Your task to perform on an android device: Clear the shopping cart on walmart.com. Search for "energizer triple a" on walmart.com, select the first entry, add it to the cart, then select checkout. Image 0: 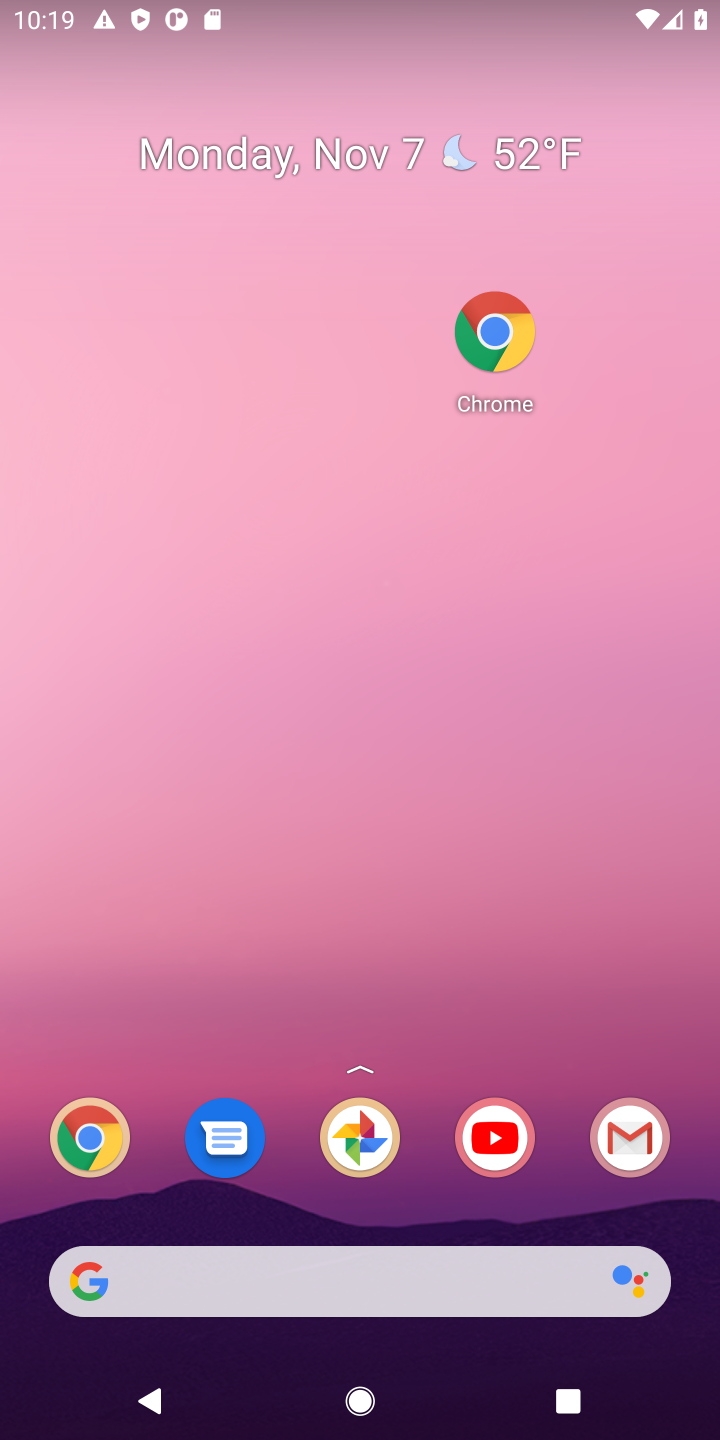
Step 0: drag from (282, 1008) to (161, 280)
Your task to perform on an android device: Clear the shopping cart on walmart.com. Search for "energizer triple a" on walmart.com, select the first entry, add it to the cart, then select checkout. Image 1: 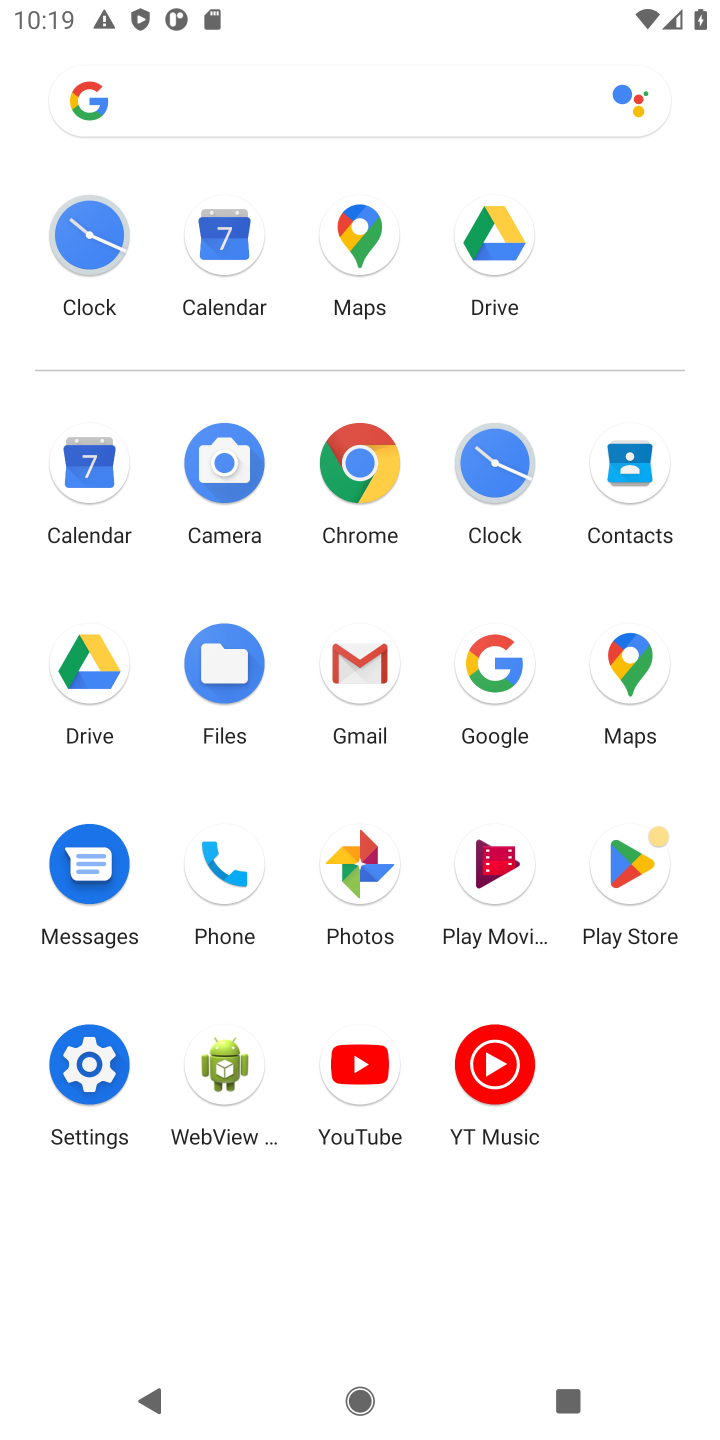
Step 1: click (367, 469)
Your task to perform on an android device: Clear the shopping cart on walmart.com. Search for "energizer triple a" on walmart.com, select the first entry, add it to the cart, then select checkout. Image 2: 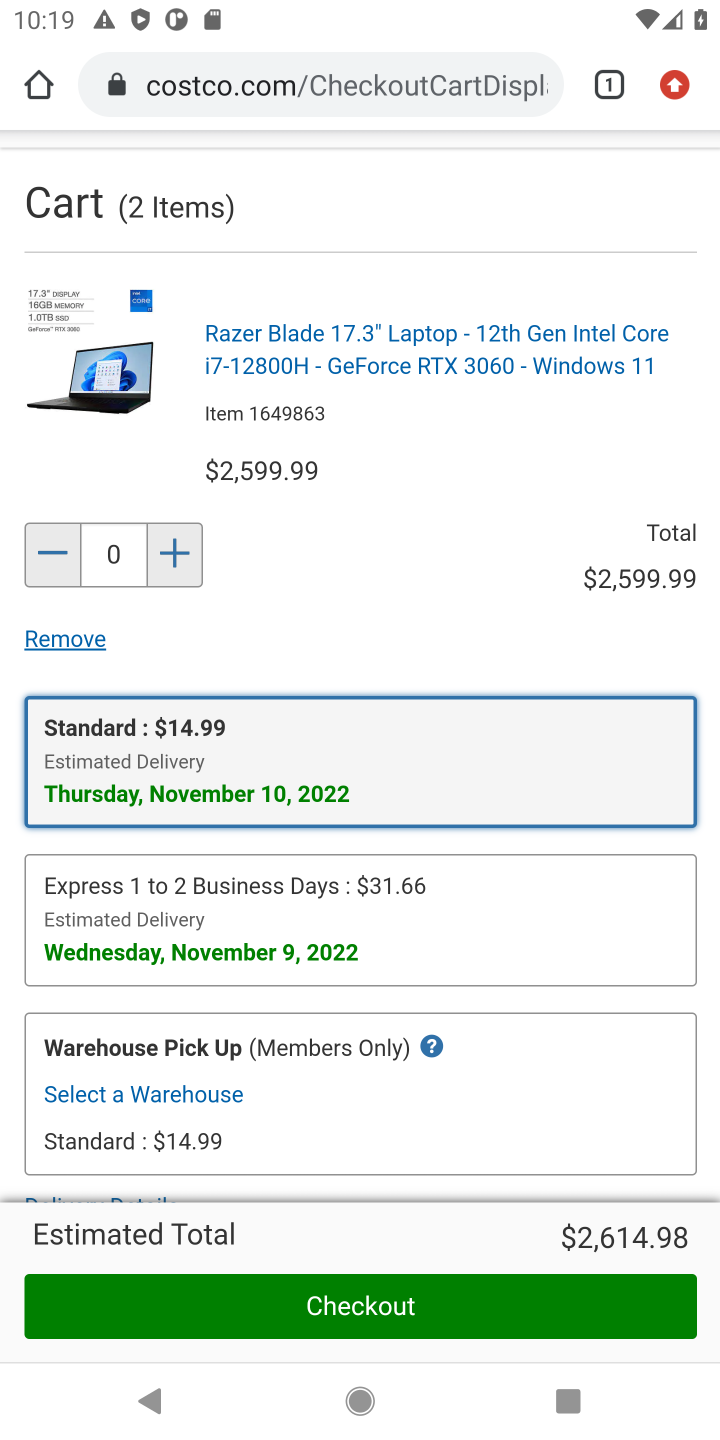
Step 2: click (385, 83)
Your task to perform on an android device: Clear the shopping cart on walmart.com. Search for "energizer triple a" on walmart.com, select the first entry, add it to the cart, then select checkout. Image 3: 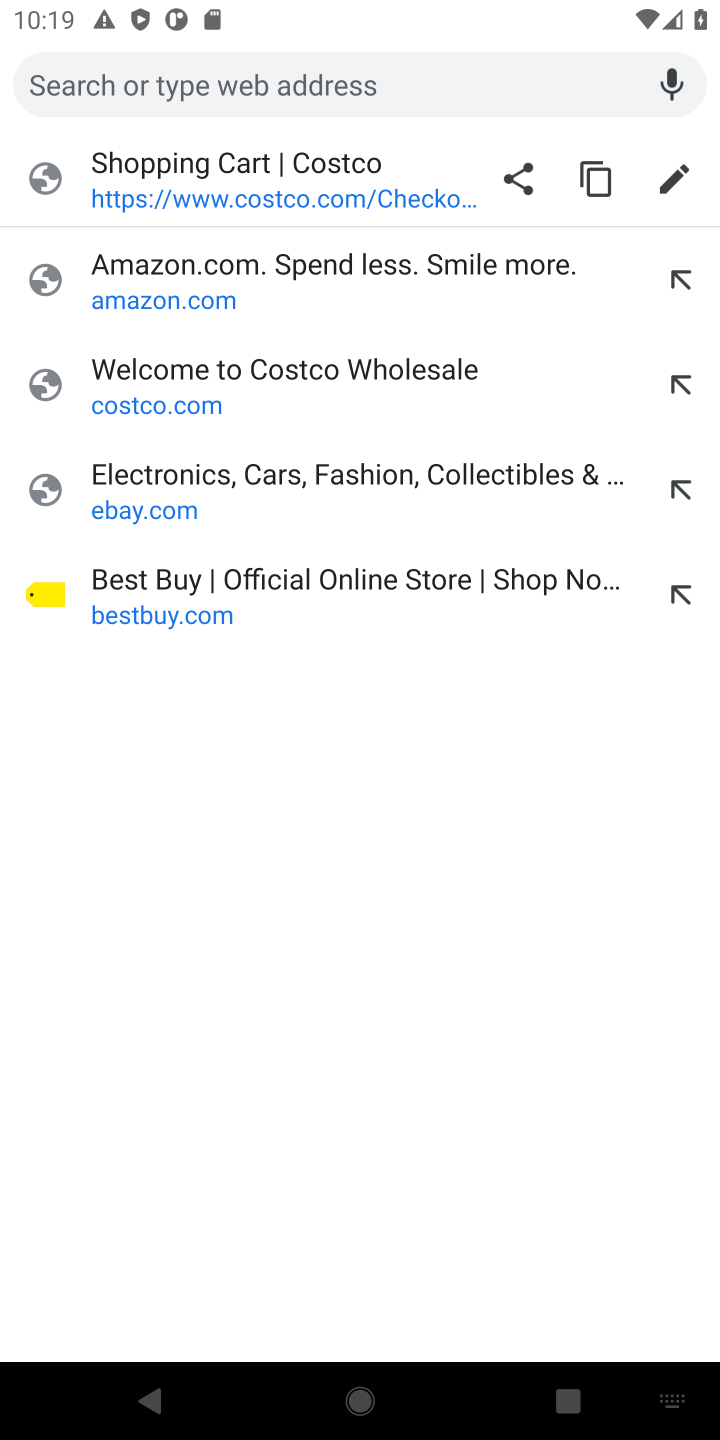
Step 3: type "walmart.com"
Your task to perform on an android device: Clear the shopping cart on walmart.com. Search for "energizer triple a" on walmart.com, select the first entry, add it to the cart, then select checkout. Image 4: 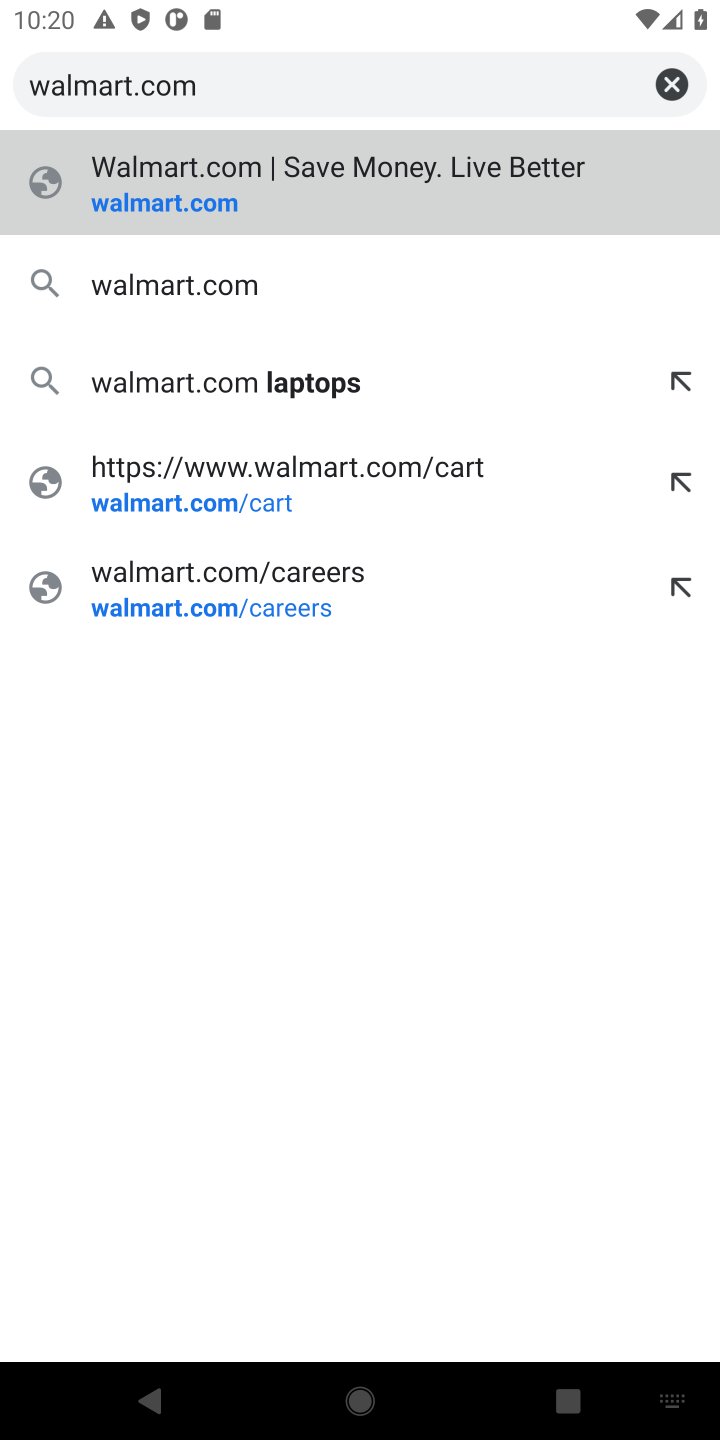
Step 4: press enter
Your task to perform on an android device: Clear the shopping cart on walmart.com. Search for "energizer triple a" on walmart.com, select the first entry, add it to the cart, then select checkout. Image 5: 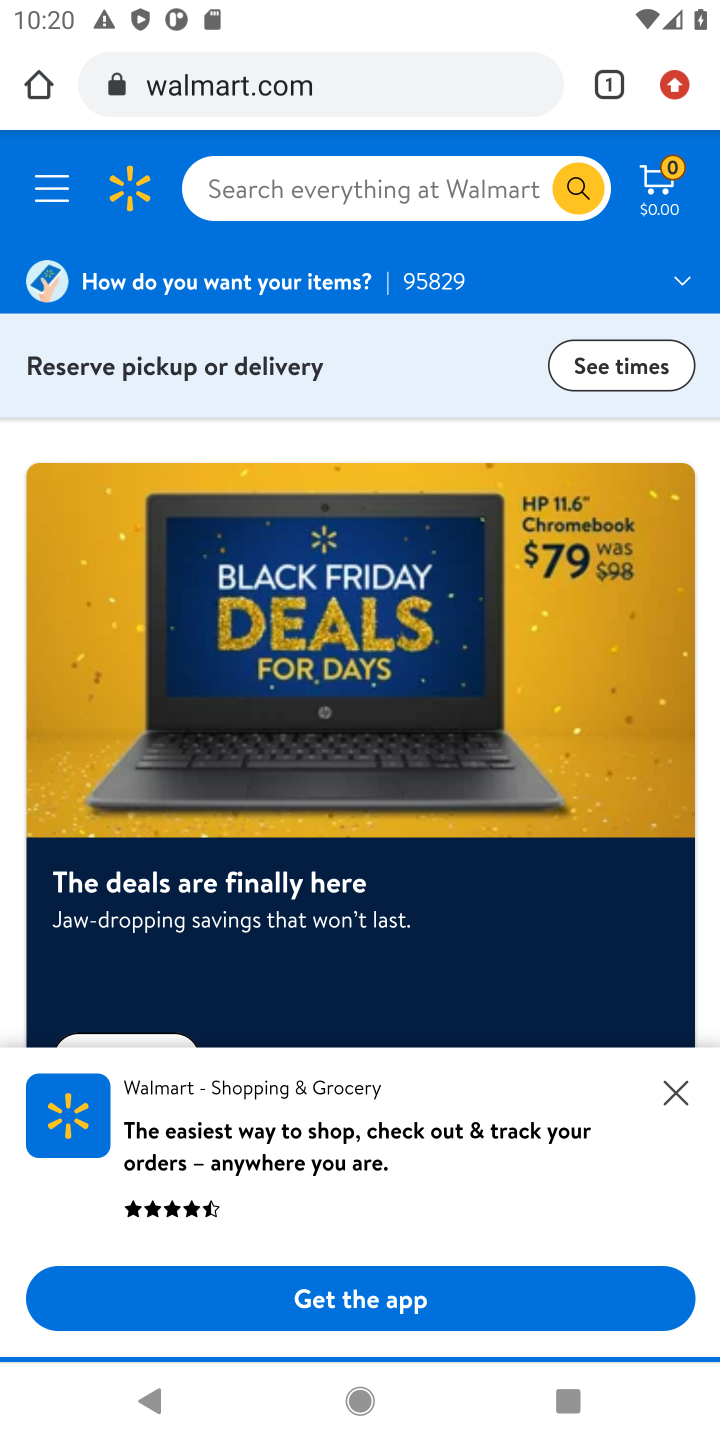
Step 5: click (656, 184)
Your task to perform on an android device: Clear the shopping cart on walmart.com. Search for "energizer triple a" on walmart.com, select the first entry, add it to the cart, then select checkout. Image 6: 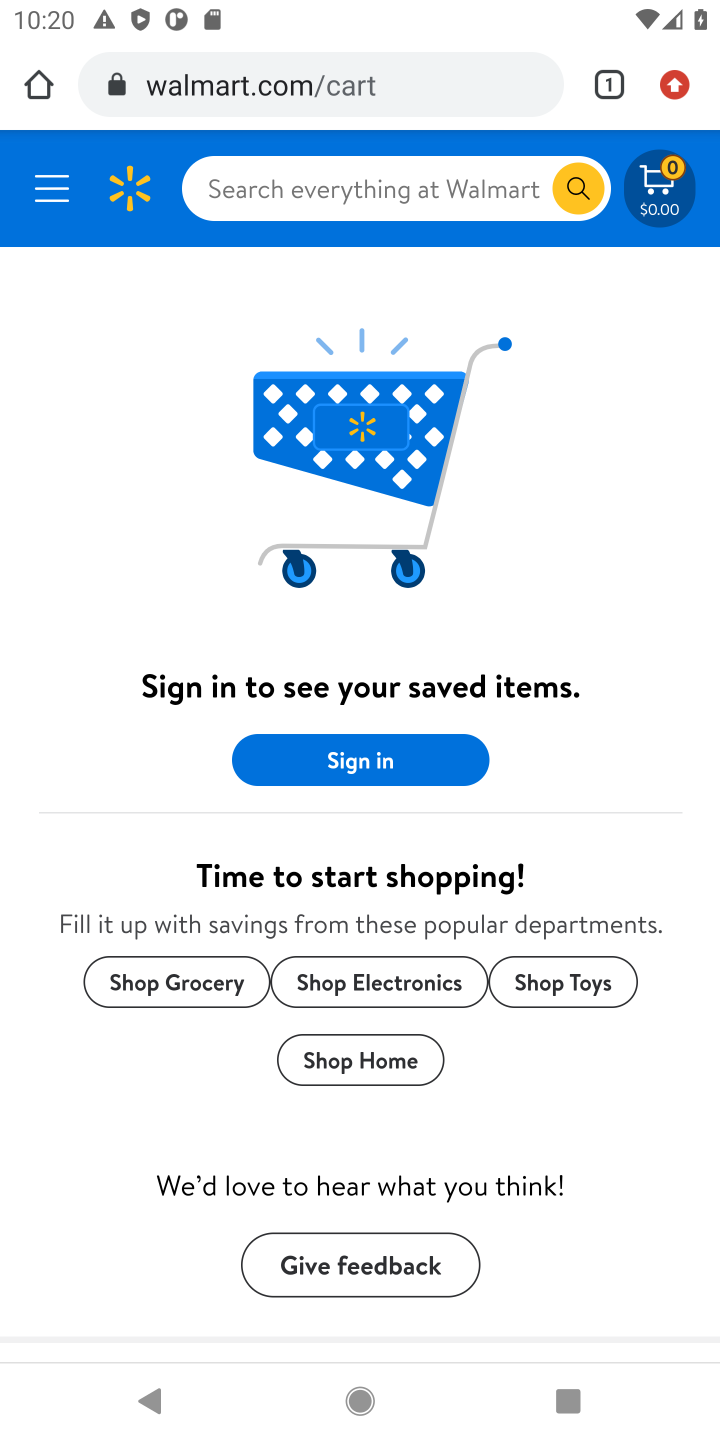
Step 6: click (419, 169)
Your task to perform on an android device: Clear the shopping cart on walmart.com. Search for "energizer triple a" on walmart.com, select the first entry, add it to the cart, then select checkout. Image 7: 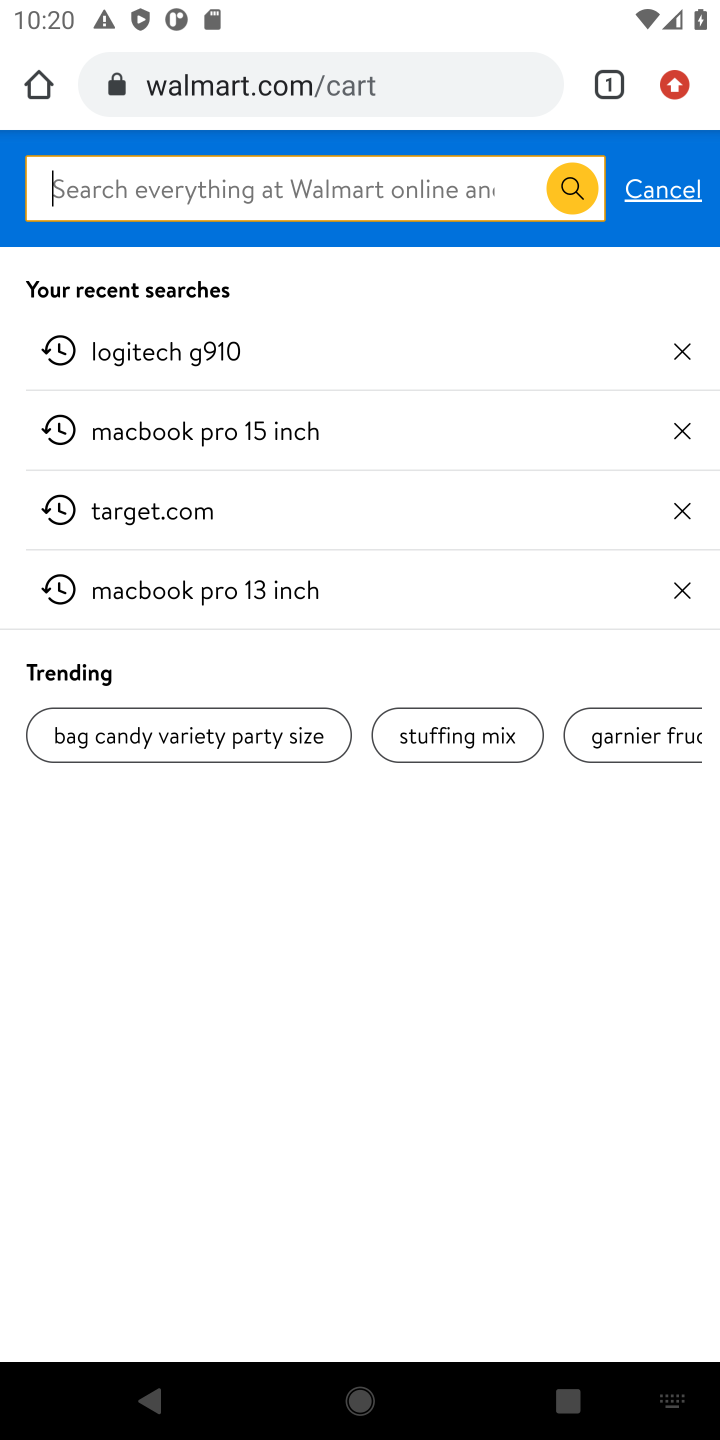
Step 7: type "energizer triple a"
Your task to perform on an android device: Clear the shopping cart on walmart.com. Search for "energizer triple a" on walmart.com, select the first entry, add it to the cart, then select checkout. Image 8: 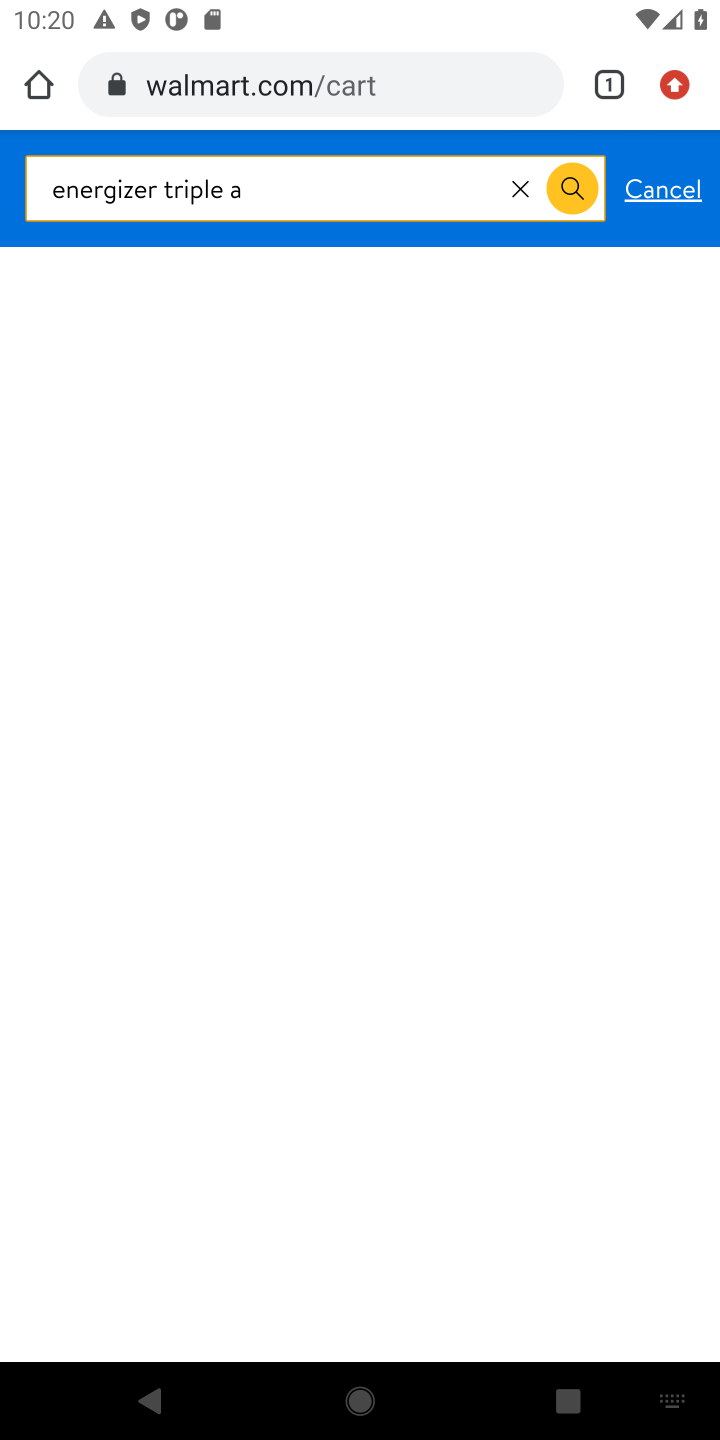
Step 8: press enter
Your task to perform on an android device: Clear the shopping cart on walmart.com. Search for "energizer triple a" on walmart.com, select the first entry, add it to the cart, then select checkout. Image 9: 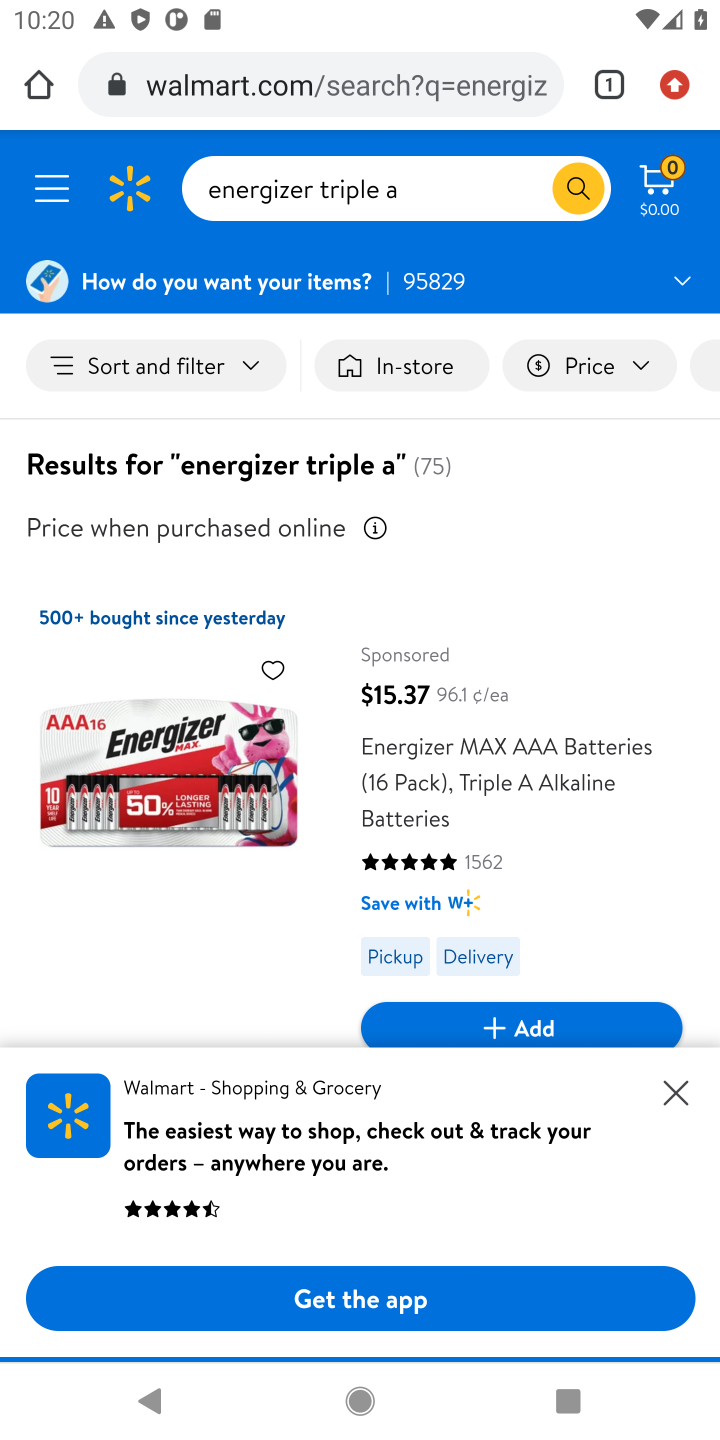
Step 9: drag from (487, 847) to (478, 188)
Your task to perform on an android device: Clear the shopping cart on walmart.com. Search for "energizer triple a" on walmart.com, select the first entry, add it to the cart, then select checkout. Image 10: 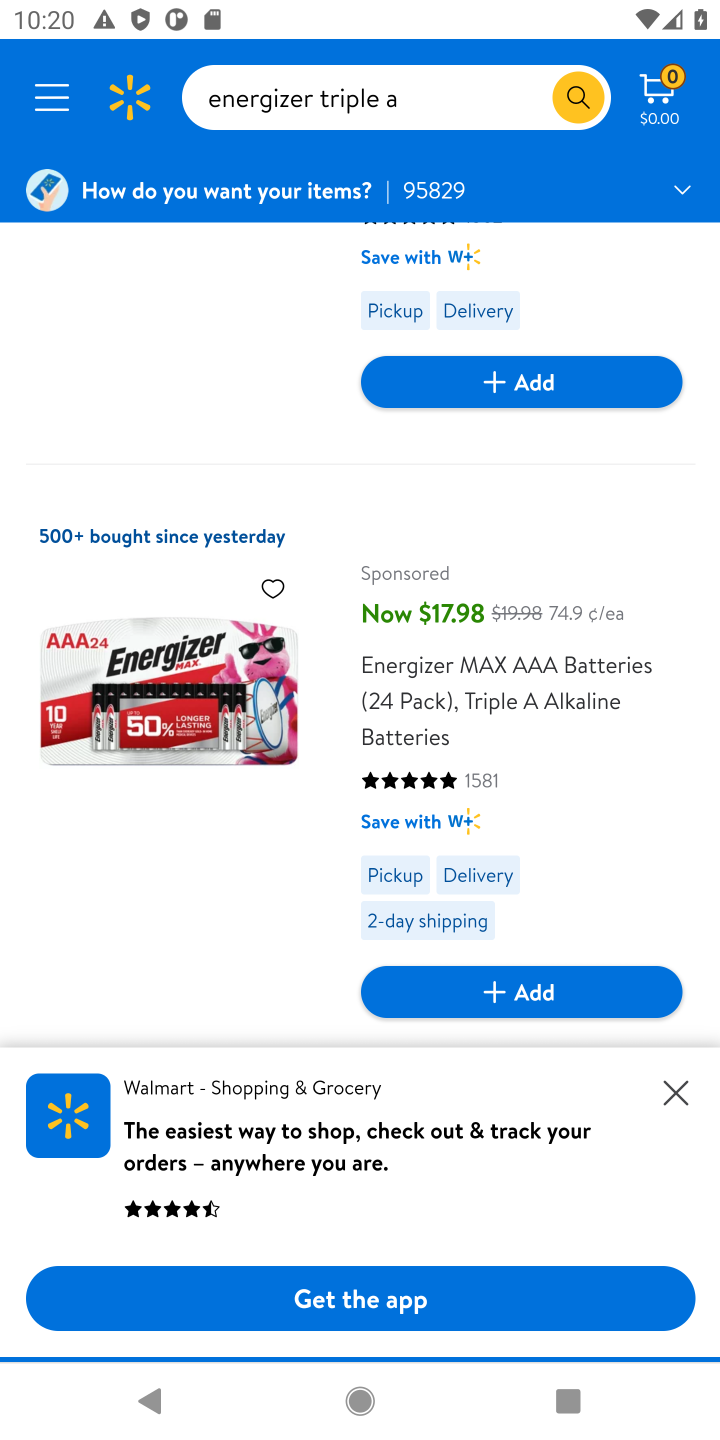
Step 10: drag from (298, 700) to (330, 328)
Your task to perform on an android device: Clear the shopping cart on walmart.com. Search for "energizer triple a" on walmart.com, select the first entry, add it to the cart, then select checkout. Image 11: 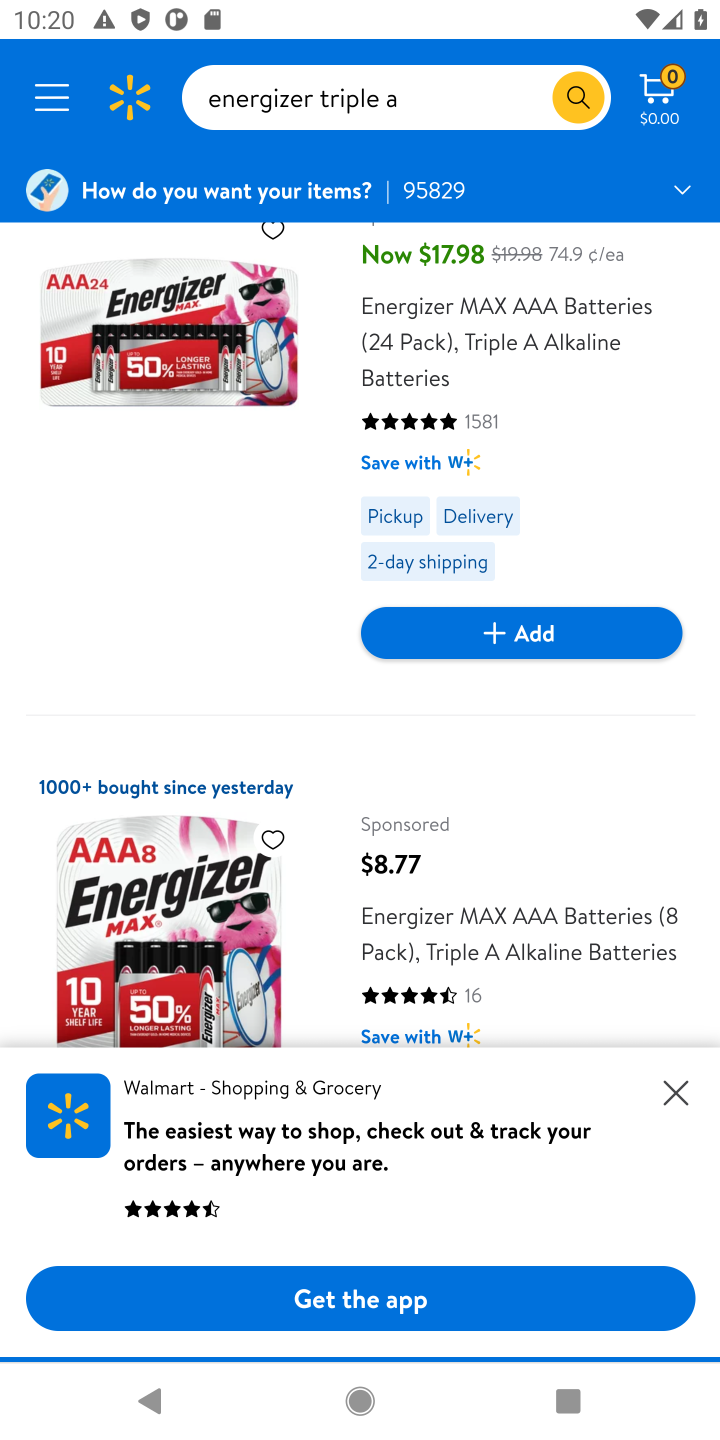
Step 11: drag from (478, 914) to (450, 163)
Your task to perform on an android device: Clear the shopping cart on walmart.com. Search for "energizer triple a" on walmart.com, select the first entry, add it to the cart, then select checkout. Image 12: 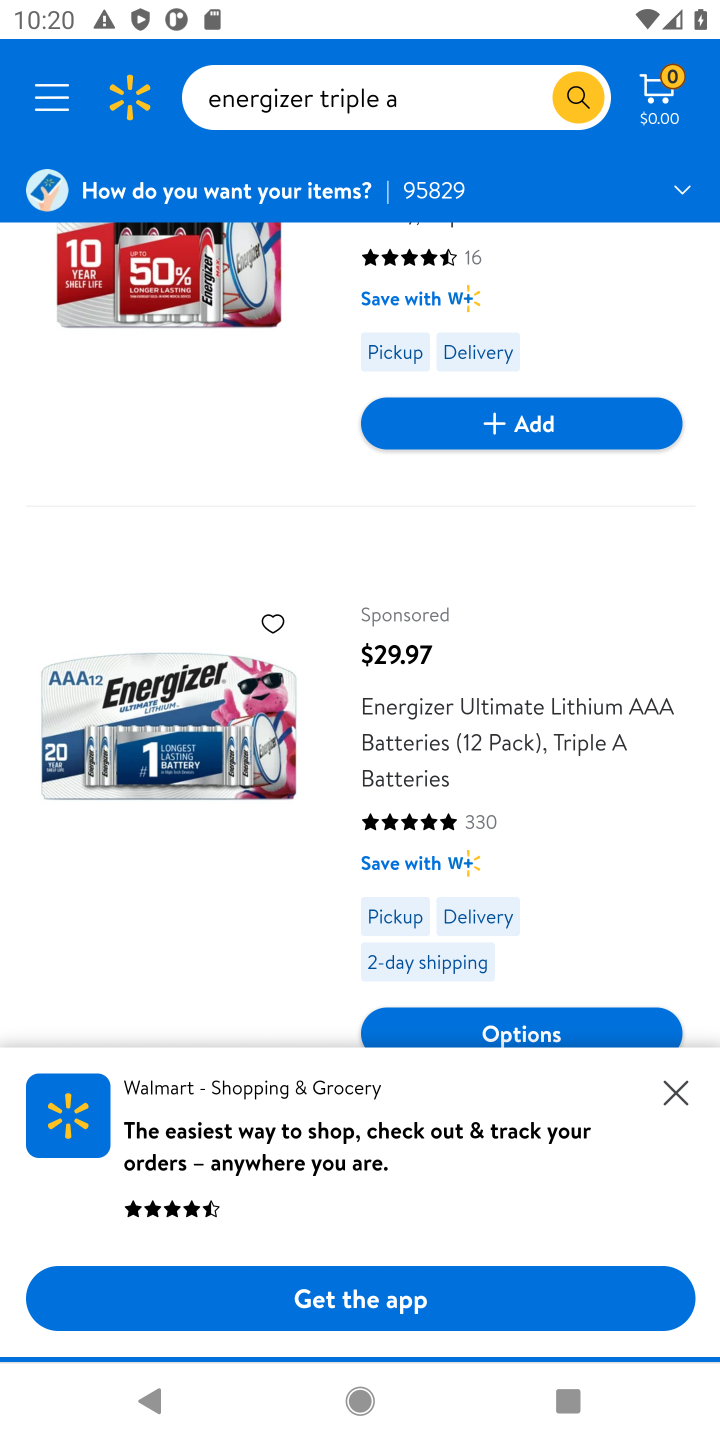
Step 12: drag from (497, 915) to (536, 256)
Your task to perform on an android device: Clear the shopping cart on walmart.com. Search for "energizer triple a" on walmart.com, select the first entry, add it to the cart, then select checkout. Image 13: 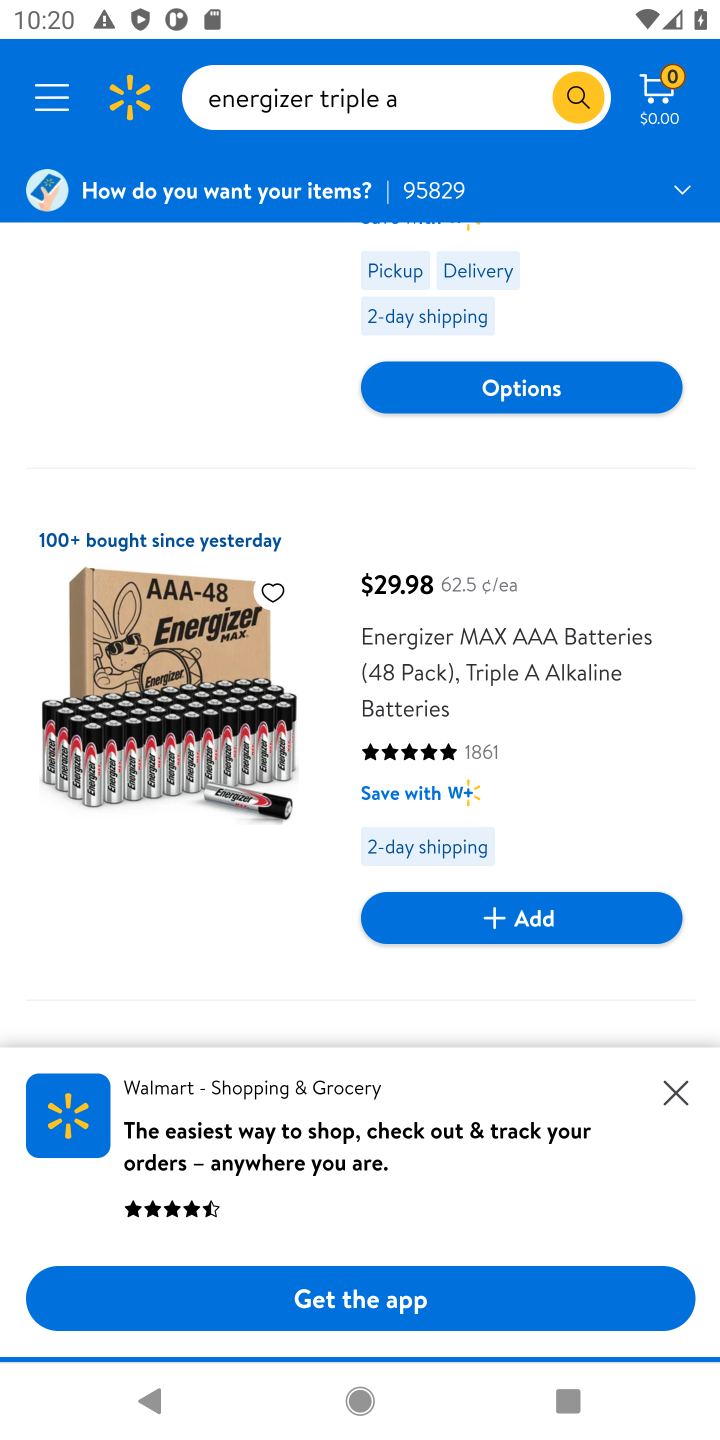
Step 13: click (564, 522)
Your task to perform on an android device: Clear the shopping cart on walmart.com. Search for "energizer triple a" on walmart.com, select the first entry, add it to the cart, then select checkout. Image 14: 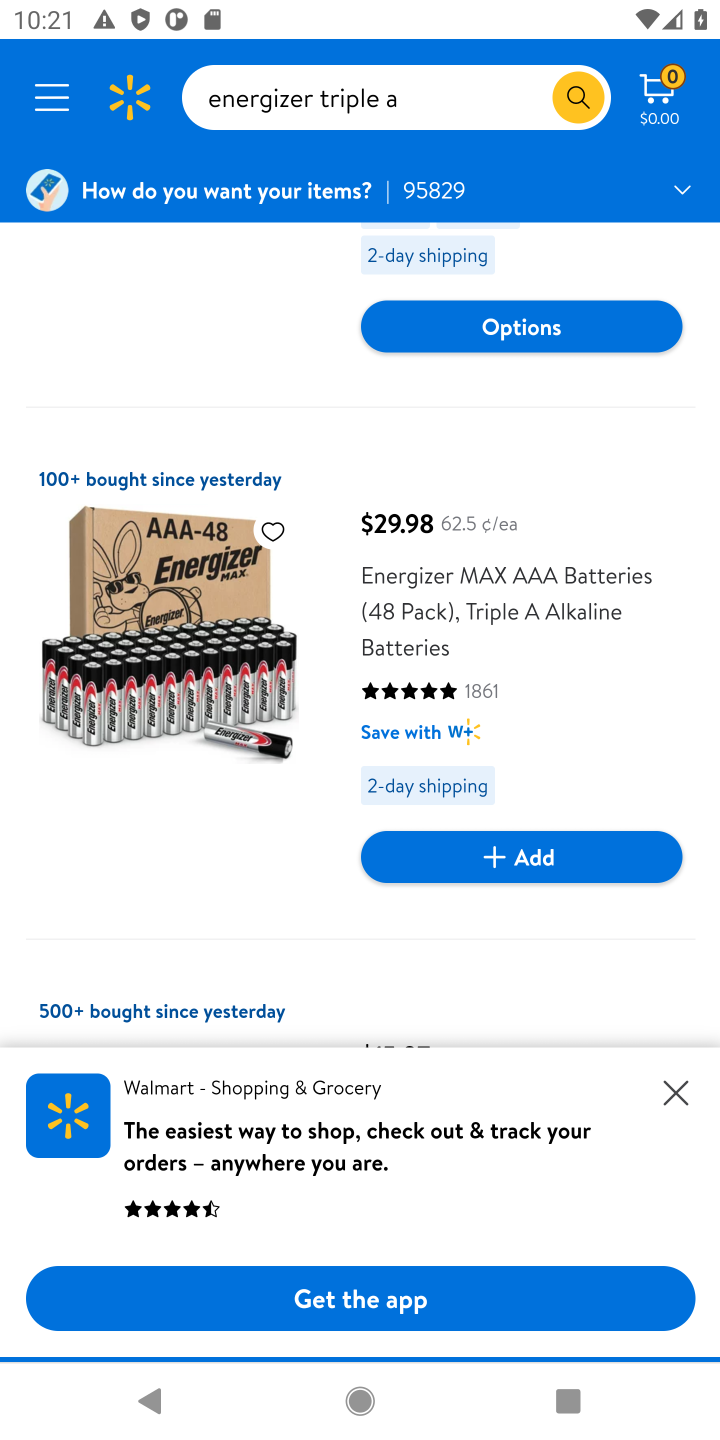
Step 14: click (598, 861)
Your task to perform on an android device: Clear the shopping cart on walmart.com. Search for "energizer triple a" on walmart.com, select the first entry, add it to the cart, then select checkout. Image 15: 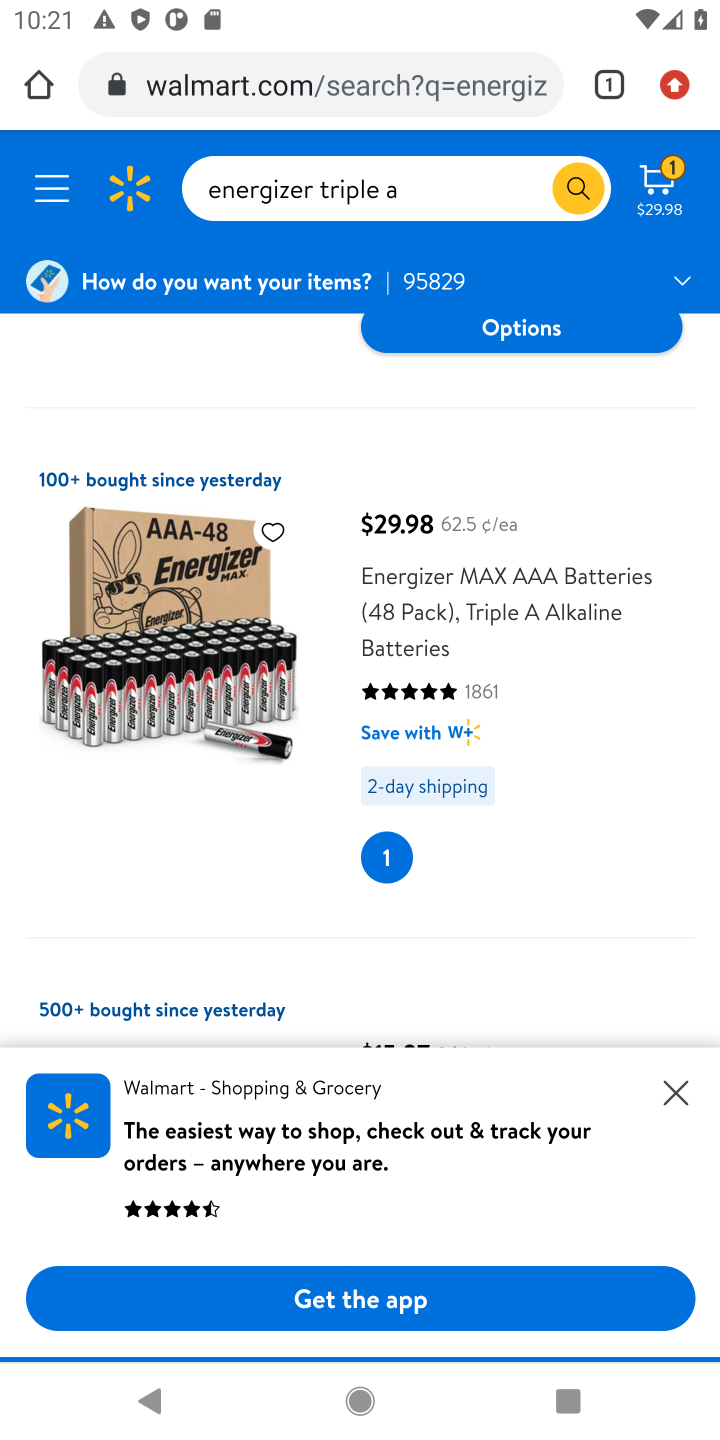
Step 15: click (672, 181)
Your task to perform on an android device: Clear the shopping cart on walmart.com. Search for "energizer triple a" on walmart.com, select the first entry, add it to the cart, then select checkout. Image 16: 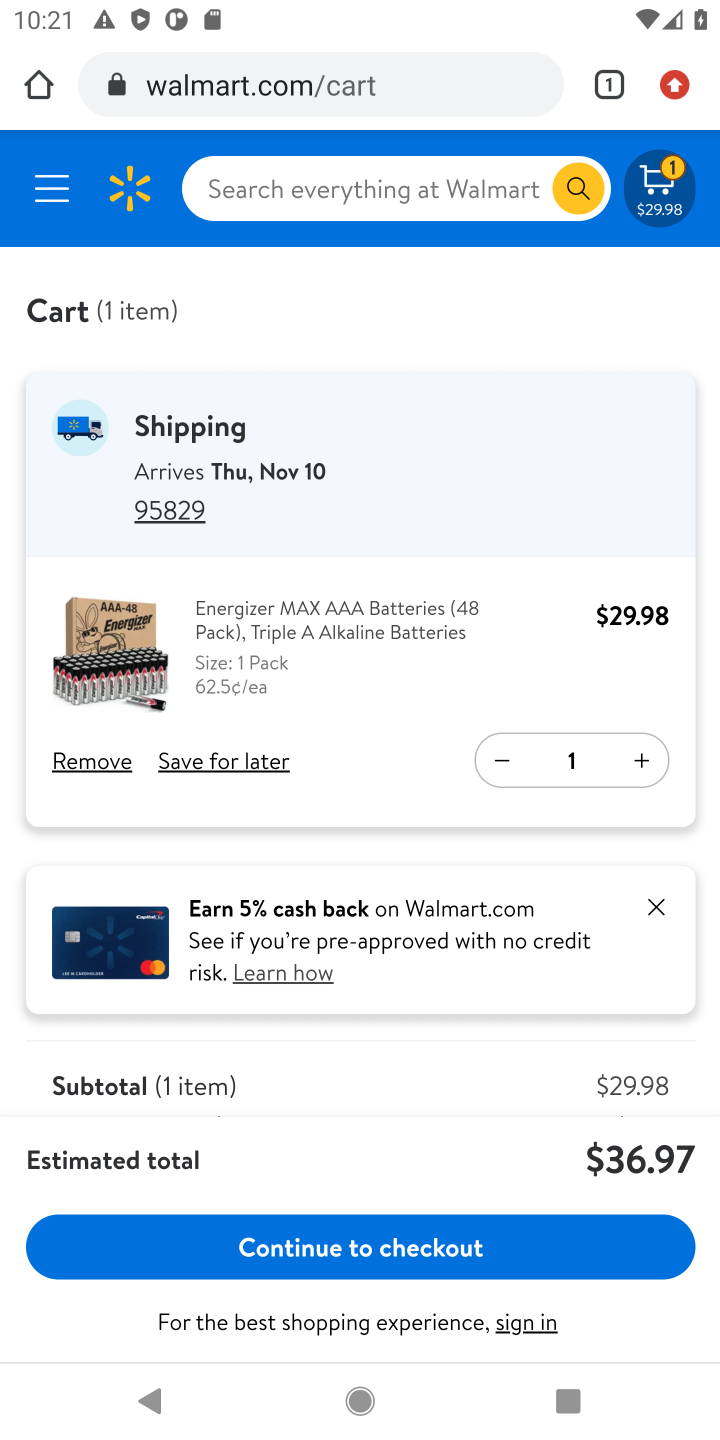
Step 16: click (443, 1247)
Your task to perform on an android device: Clear the shopping cart on walmart.com. Search for "energizer triple a" on walmart.com, select the first entry, add it to the cart, then select checkout. Image 17: 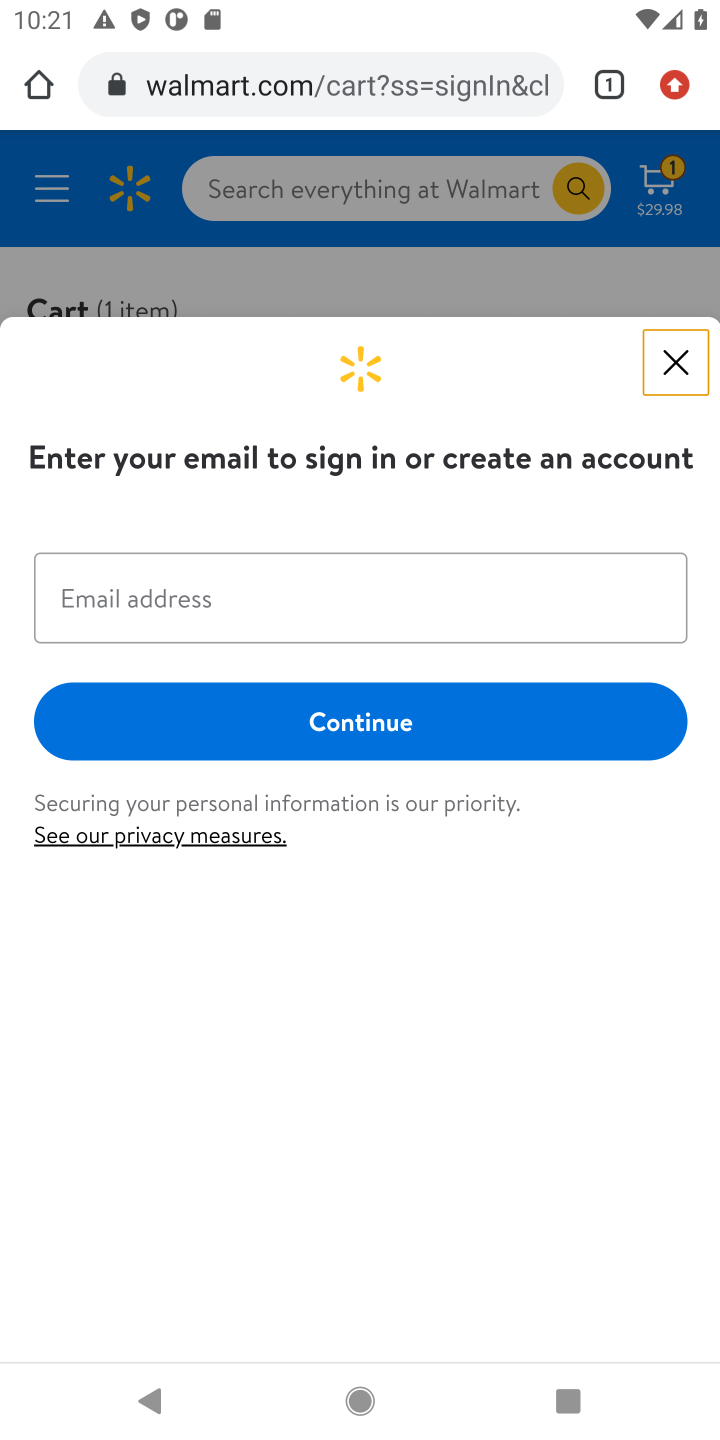
Step 17: task complete